Your task to perform on an android device: open chrome and create a bookmark for the current page Image 0: 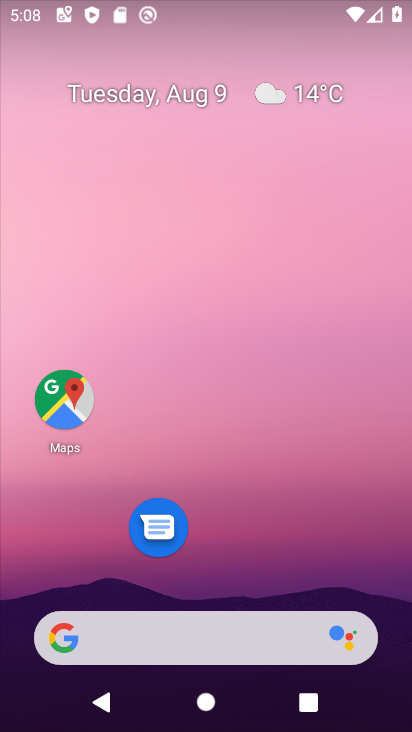
Step 0: drag from (211, 555) to (168, 133)
Your task to perform on an android device: open chrome and create a bookmark for the current page Image 1: 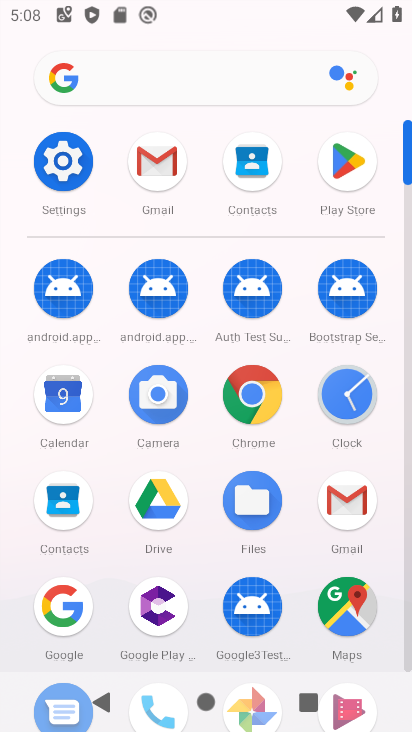
Step 1: click (263, 388)
Your task to perform on an android device: open chrome and create a bookmark for the current page Image 2: 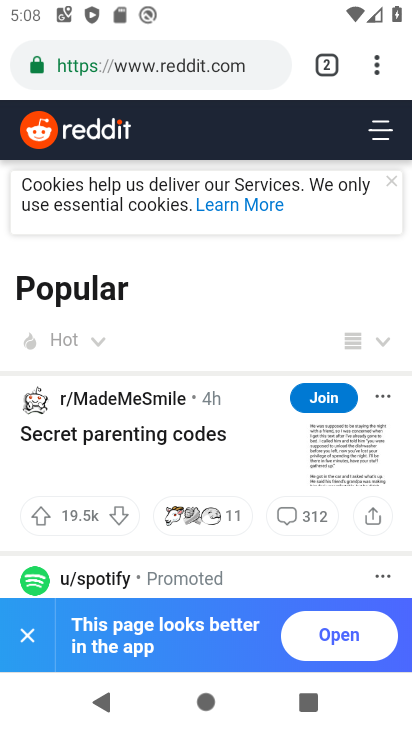
Step 2: click (380, 59)
Your task to perform on an android device: open chrome and create a bookmark for the current page Image 3: 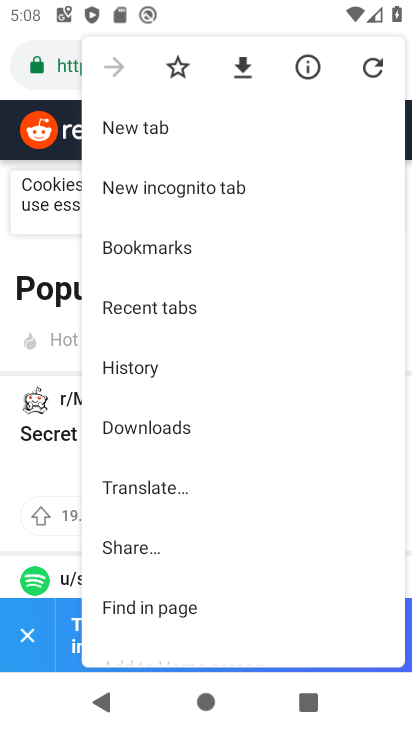
Step 3: click (184, 66)
Your task to perform on an android device: open chrome and create a bookmark for the current page Image 4: 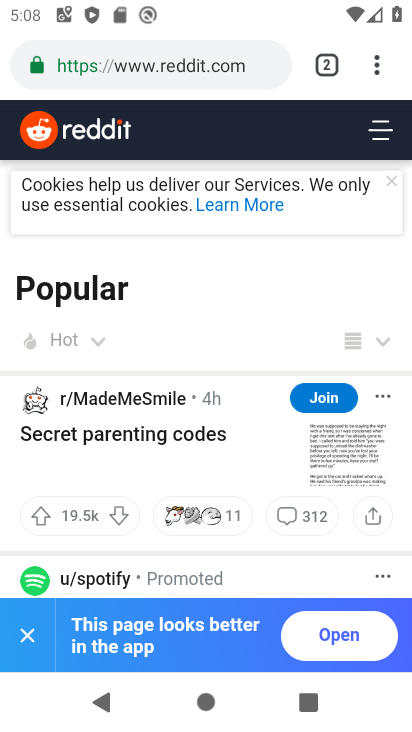
Step 4: task complete